Your task to perform on an android device: How much does a 2 bedroom apartment rent for in Portland? Image 0: 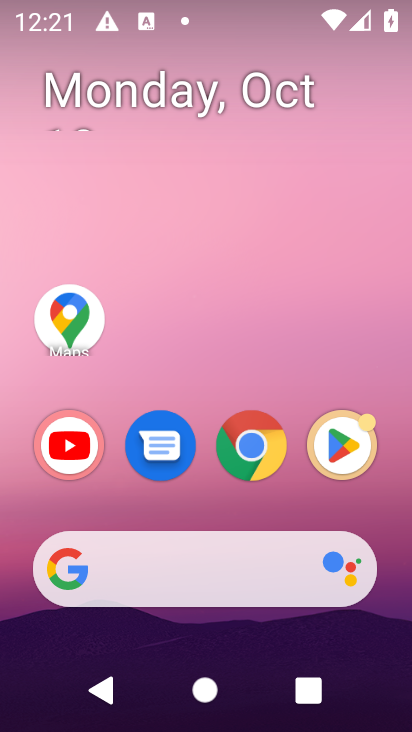
Step 0: click (54, 575)
Your task to perform on an android device: How much does a 2 bedroom apartment rent for in Portland? Image 1: 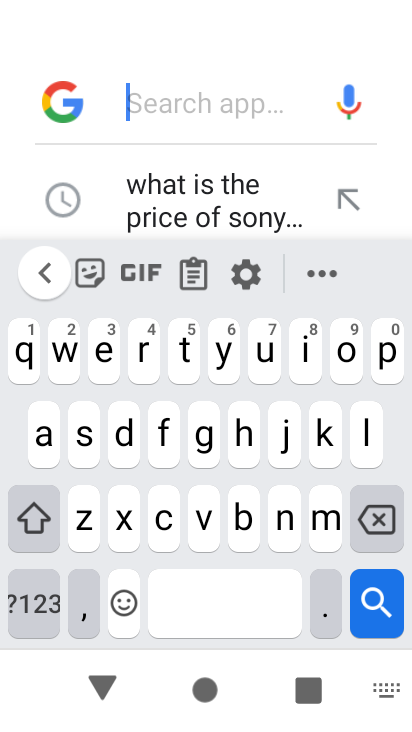
Step 1: type "how much does a 2 bedroom apartment rent for in portland?"
Your task to perform on an android device: How much does a 2 bedroom apartment rent for in Portland? Image 2: 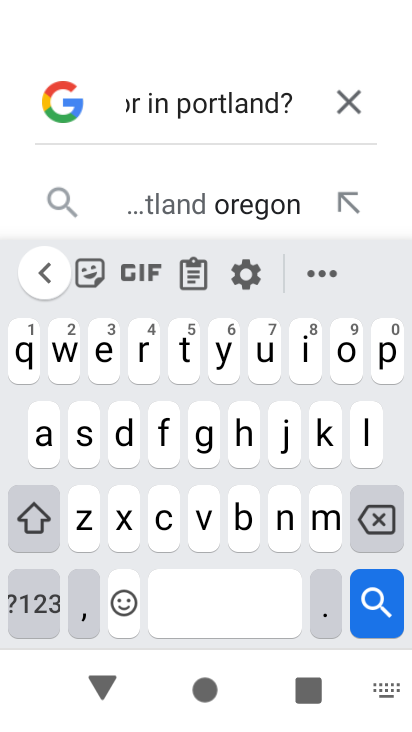
Step 2: click (229, 205)
Your task to perform on an android device: How much does a 2 bedroom apartment rent for in Portland? Image 3: 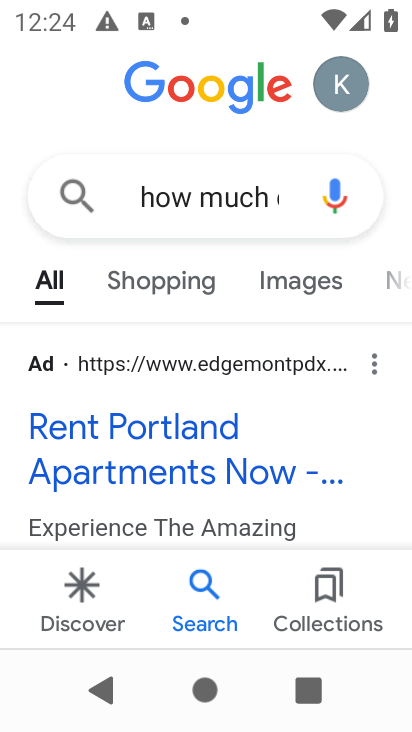
Step 3: task complete